Your task to perform on an android device: Search for a new foundation on Sephora Image 0: 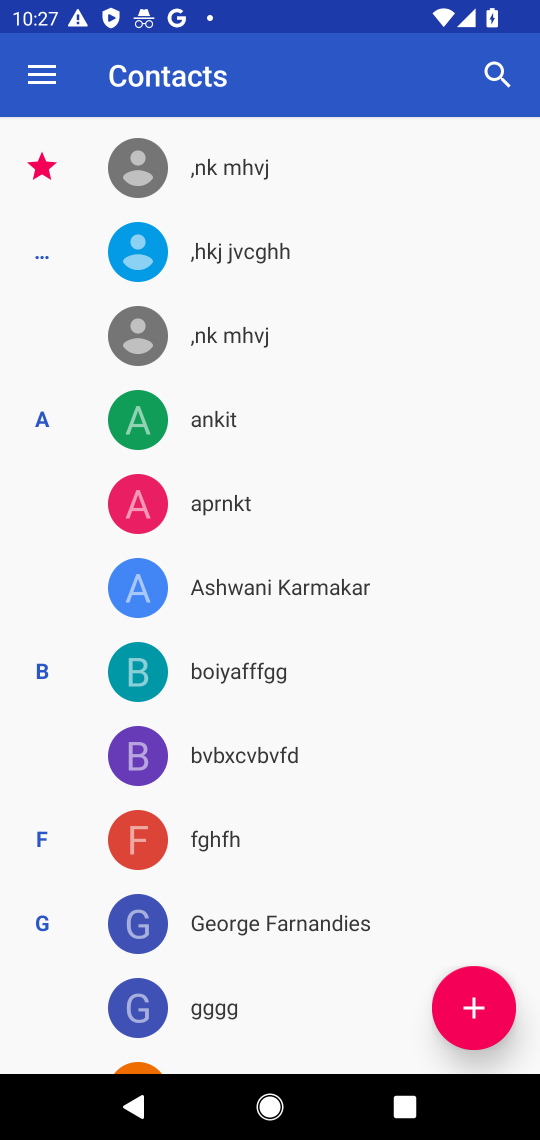
Step 0: press home button
Your task to perform on an android device: Search for a new foundation on Sephora Image 1: 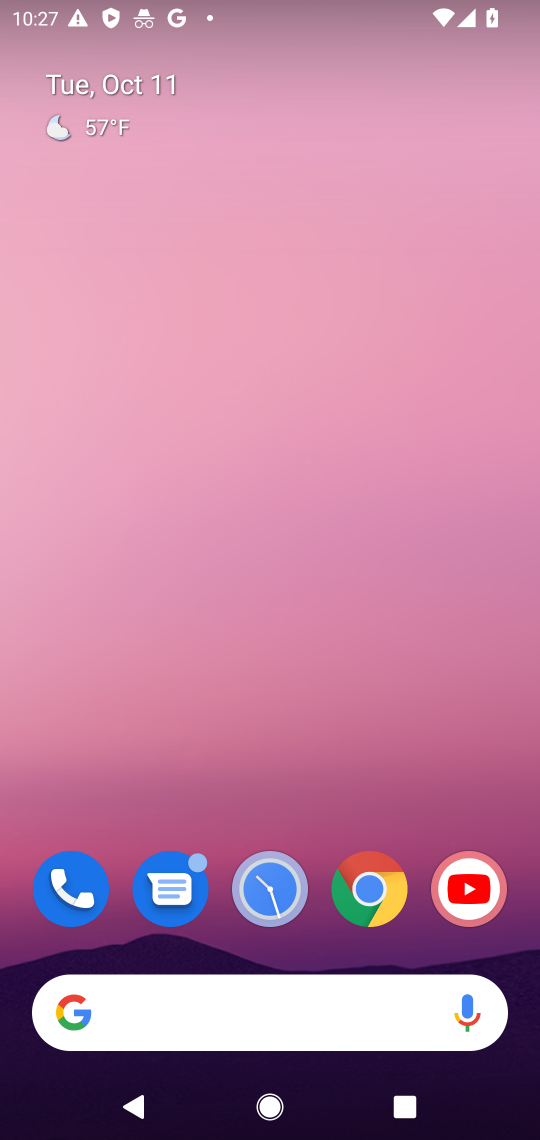
Step 1: click (263, 1012)
Your task to perform on an android device: Search for a new foundation on Sephora Image 2: 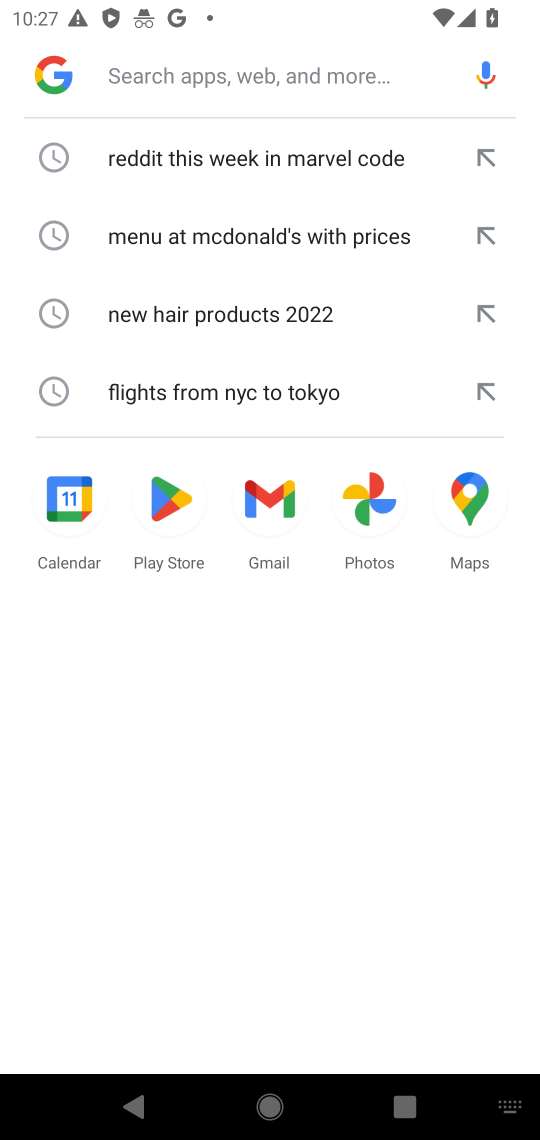
Step 2: click (104, 80)
Your task to perform on an android device: Search for a new foundation on Sephora Image 3: 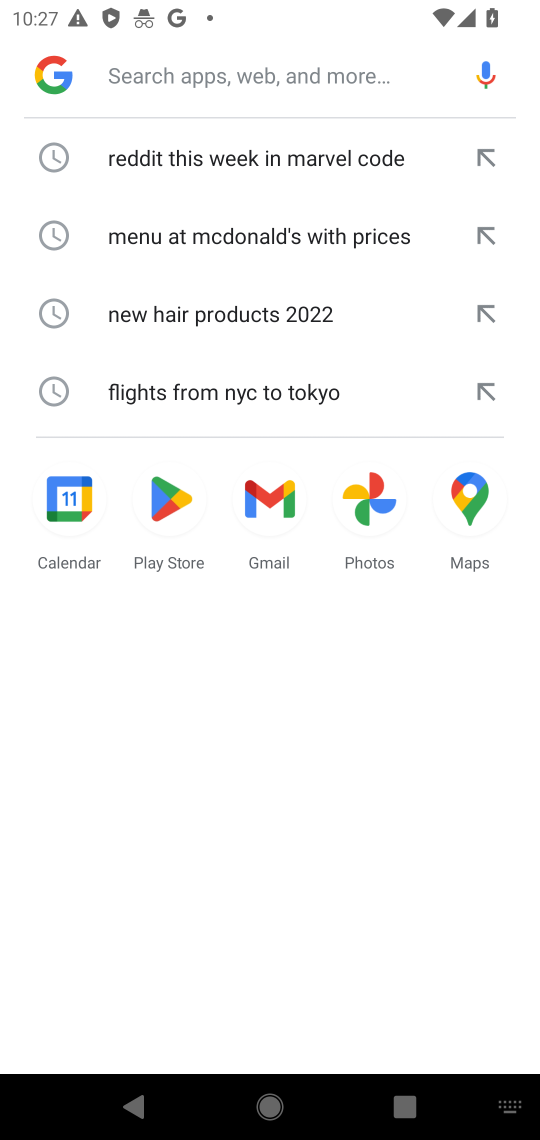
Step 3: type "new foundation on Sephora"
Your task to perform on an android device: Search for a new foundation on Sephora Image 4: 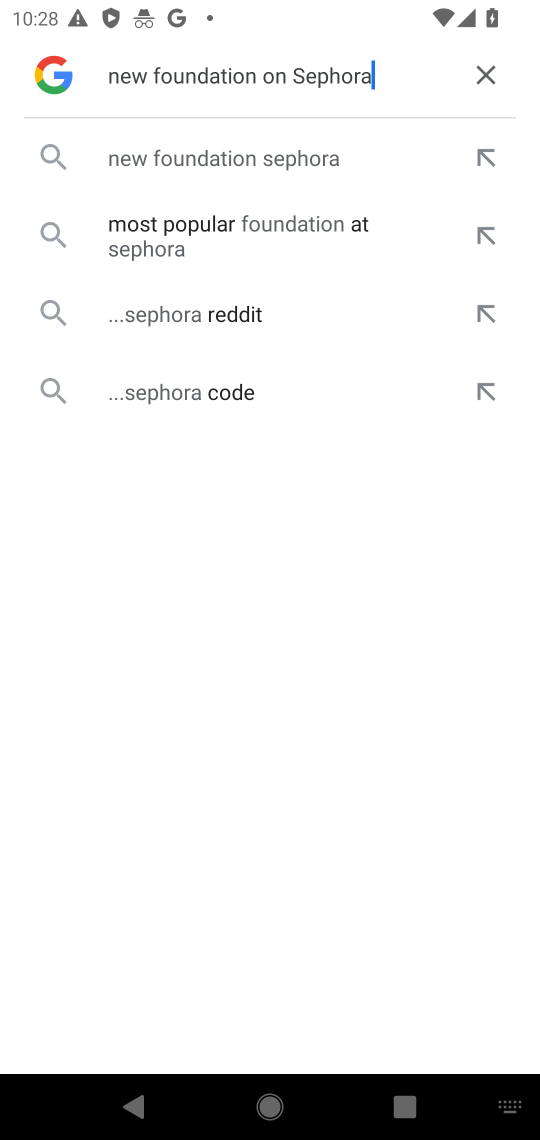
Step 4: click (266, 162)
Your task to perform on an android device: Search for a new foundation on Sephora Image 5: 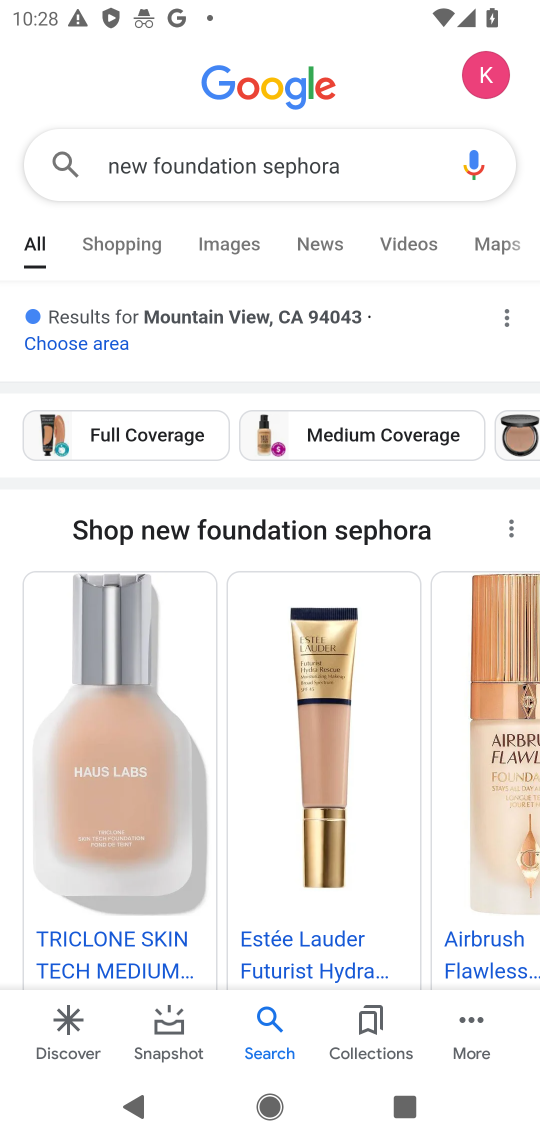
Step 5: task complete